Your task to perform on an android device: Open Wikipedia Image 0: 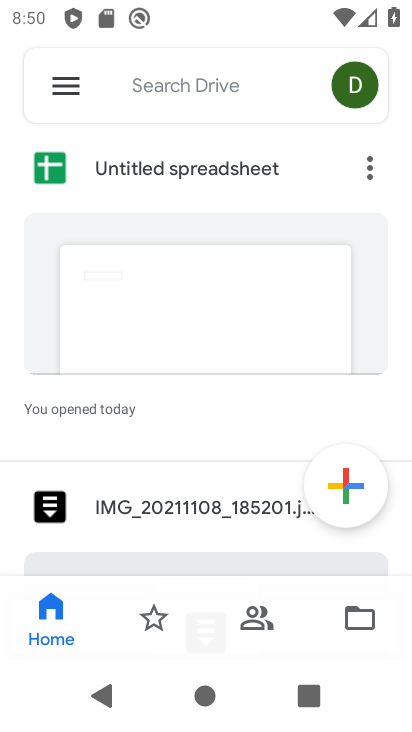
Step 0: press back button
Your task to perform on an android device: Open Wikipedia Image 1: 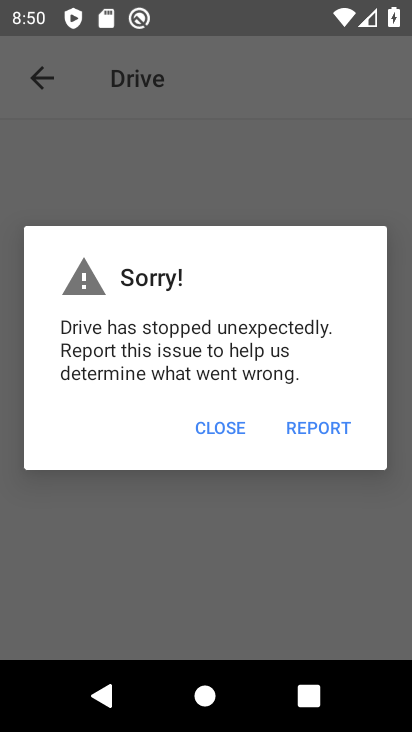
Step 1: click (228, 428)
Your task to perform on an android device: Open Wikipedia Image 2: 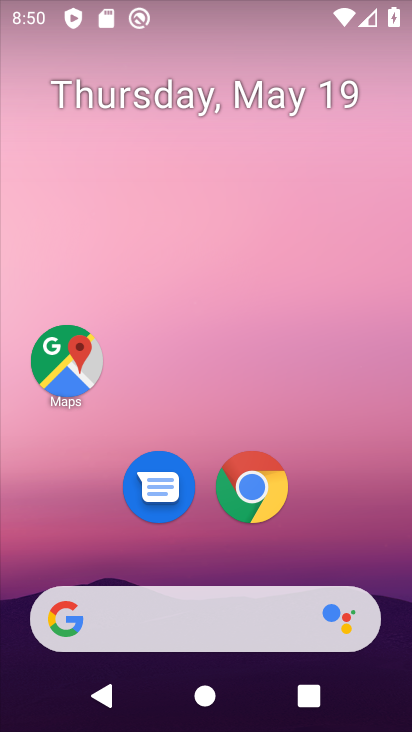
Step 2: click (239, 480)
Your task to perform on an android device: Open Wikipedia Image 3: 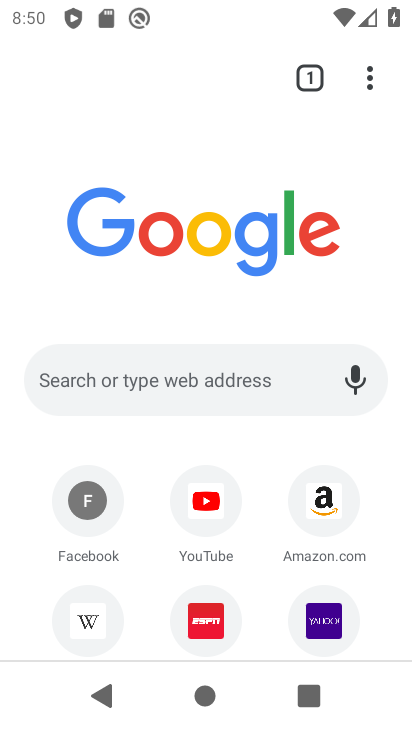
Step 3: click (95, 613)
Your task to perform on an android device: Open Wikipedia Image 4: 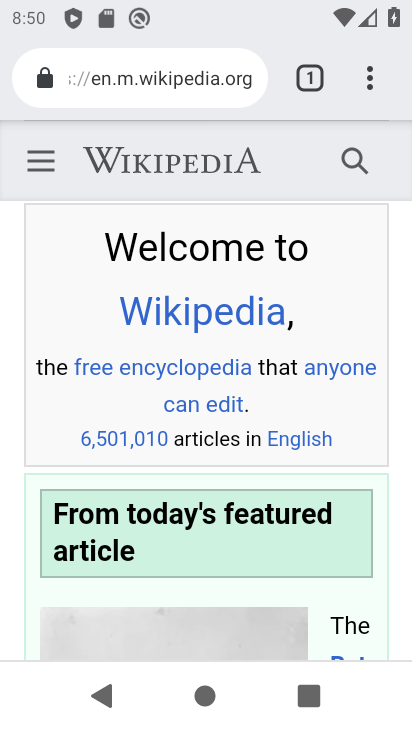
Step 4: task complete